Your task to perform on an android device: move a message to another label in the gmail app Image 0: 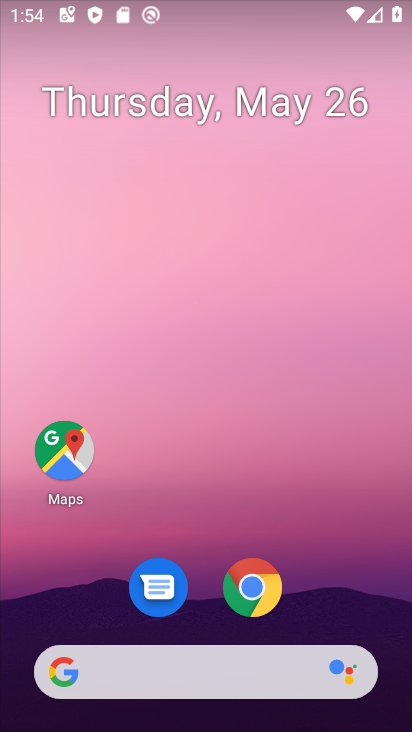
Step 0: drag from (337, 546) to (363, 106)
Your task to perform on an android device: move a message to another label in the gmail app Image 1: 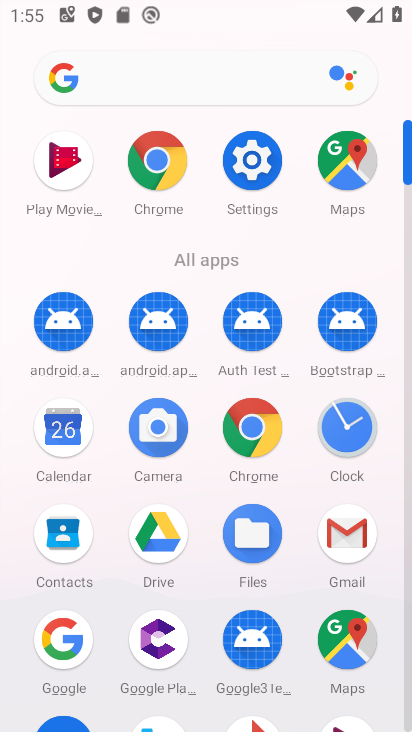
Step 1: click (362, 533)
Your task to perform on an android device: move a message to another label in the gmail app Image 2: 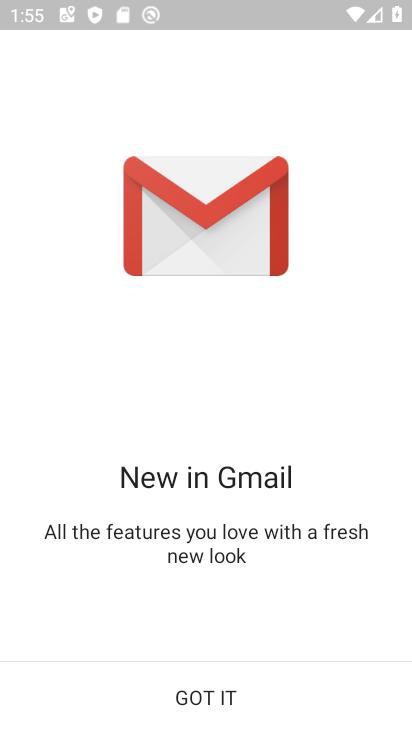
Step 2: click (225, 683)
Your task to perform on an android device: move a message to another label in the gmail app Image 3: 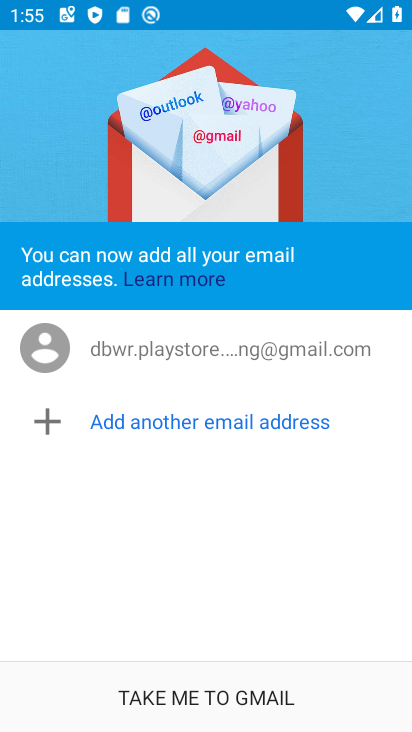
Step 3: click (204, 698)
Your task to perform on an android device: move a message to another label in the gmail app Image 4: 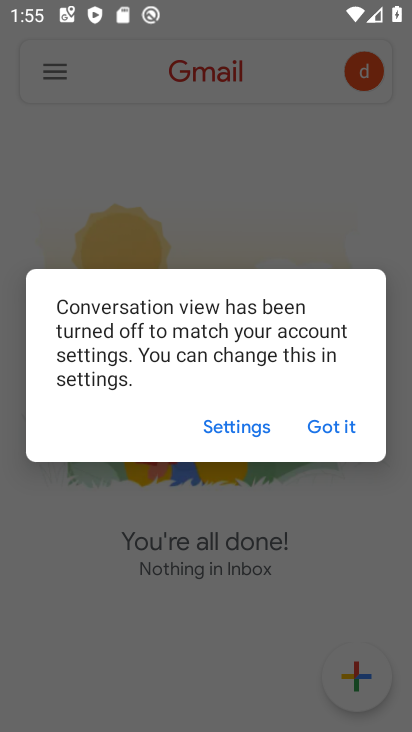
Step 4: click (323, 413)
Your task to perform on an android device: move a message to another label in the gmail app Image 5: 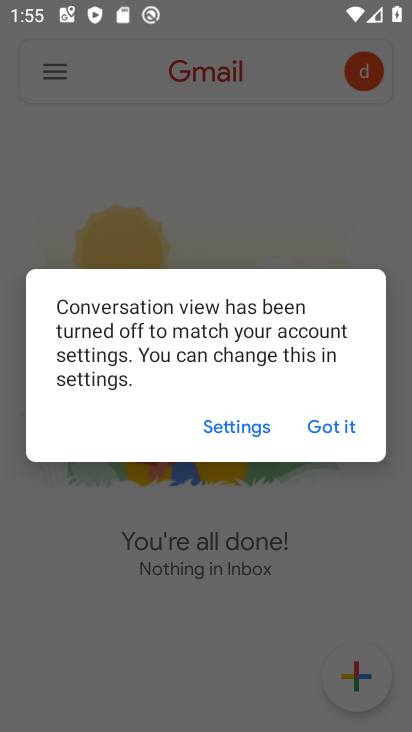
Step 5: click (323, 415)
Your task to perform on an android device: move a message to another label in the gmail app Image 6: 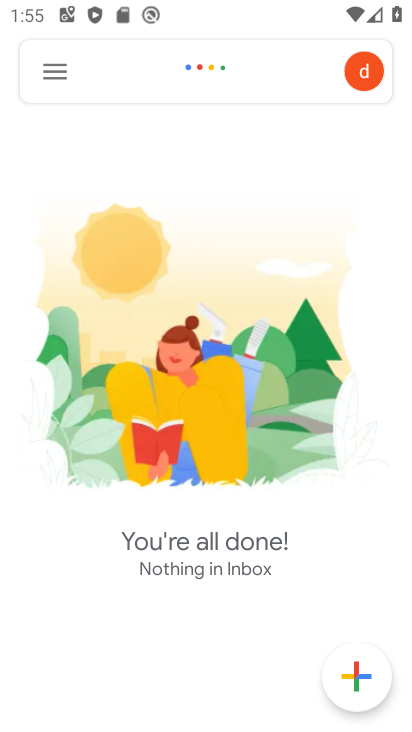
Step 6: click (46, 74)
Your task to perform on an android device: move a message to another label in the gmail app Image 7: 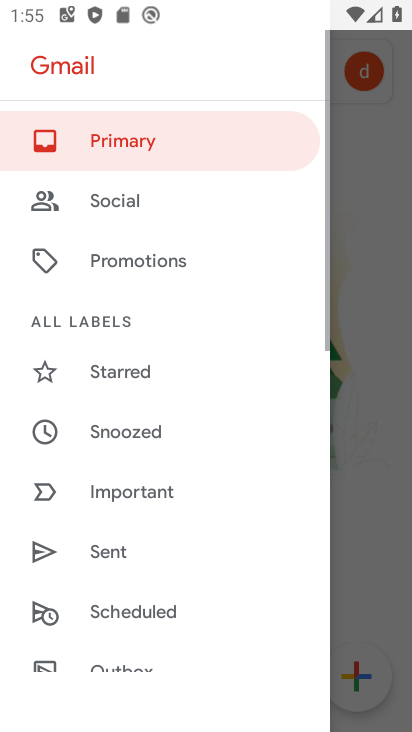
Step 7: drag from (113, 647) to (234, 206)
Your task to perform on an android device: move a message to another label in the gmail app Image 8: 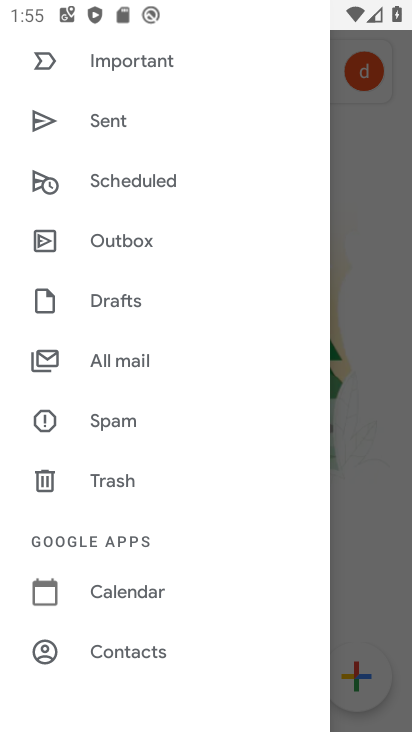
Step 8: drag from (123, 244) to (133, 651)
Your task to perform on an android device: move a message to another label in the gmail app Image 9: 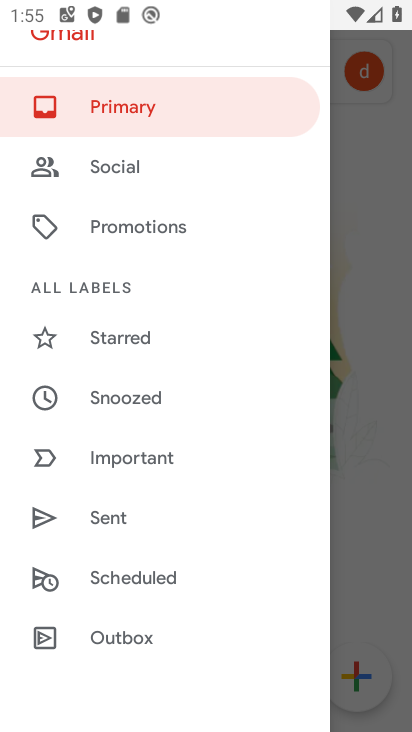
Step 9: drag from (117, 568) to (180, 165)
Your task to perform on an android device: move a message to another label in the gmail app Image 10: 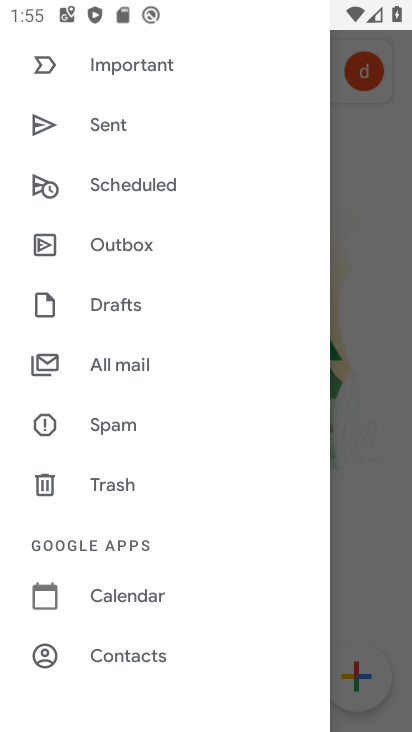
Step 10: click (126, 361)
Your task to perform on an android device: move a message to another label in the gmail app Image 11: 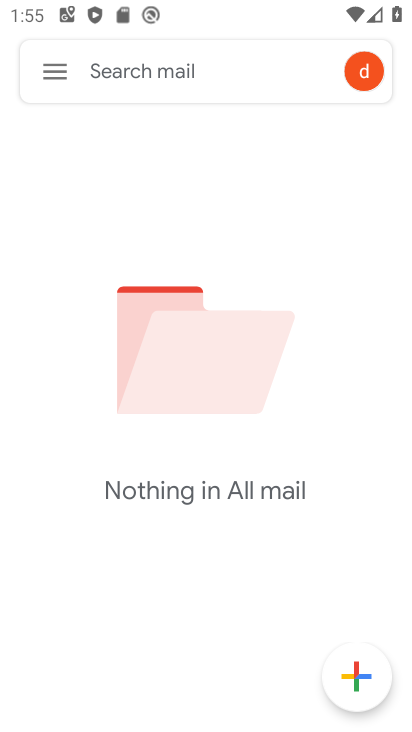
Step 11: task complete